Your task to perform on an android device: Open Google Maps Image 0: 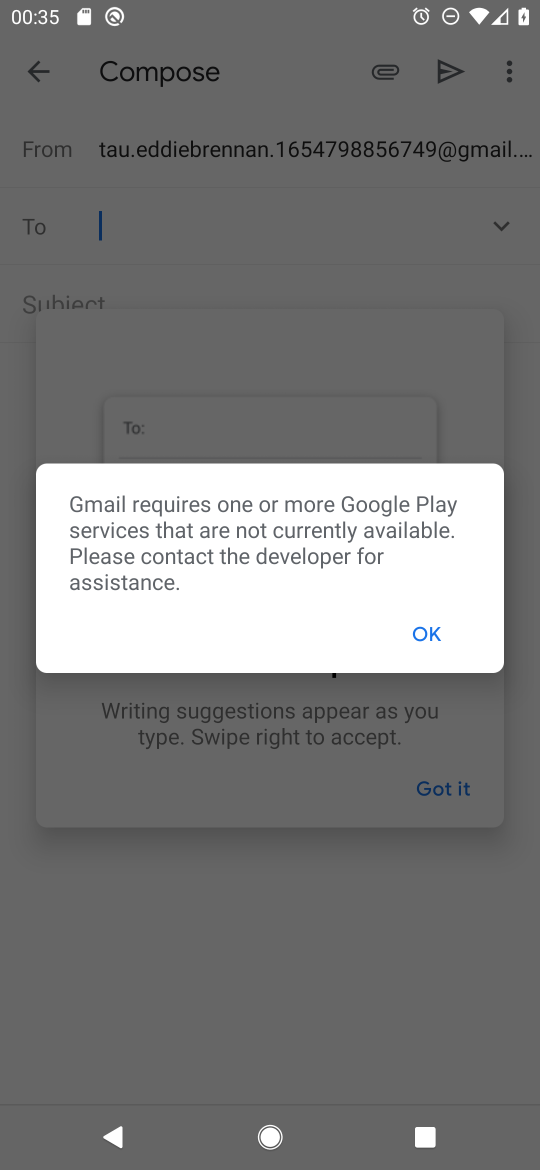
Step 0: press home button
Your task to perform on an android device: Open Google Maps Image 1: 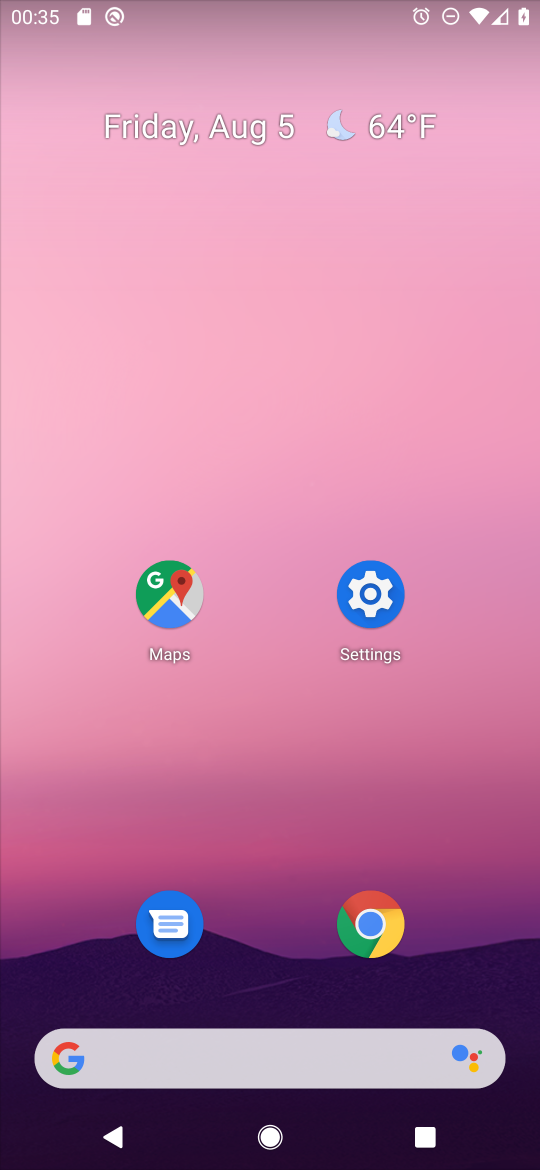
Step 1: click (165, 604)
Your task to perform on an android device: Open Google Maps Image 2: 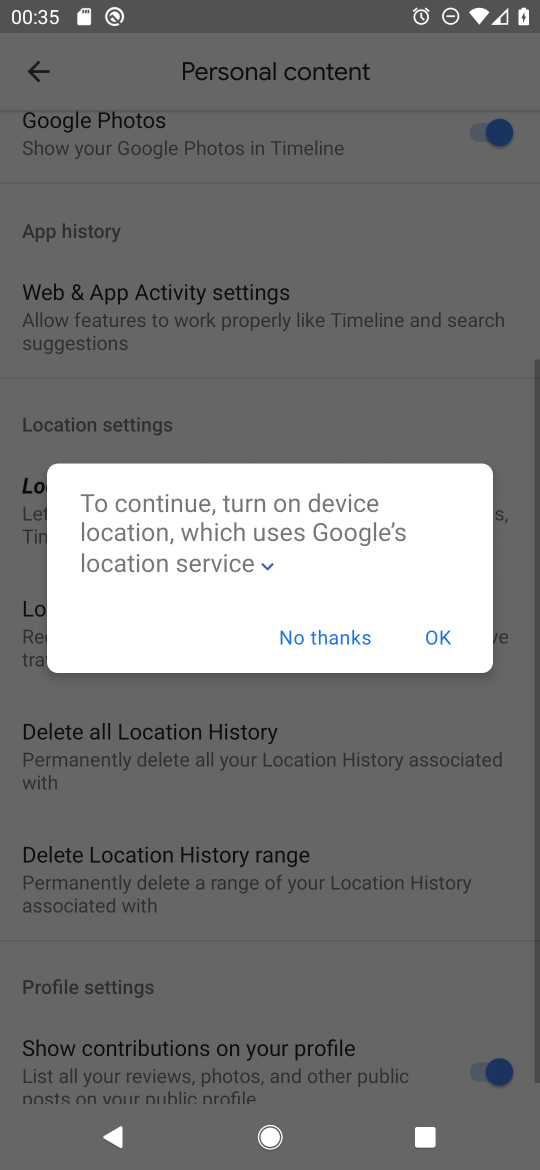
Step 2: click (31, 64)
Your task to perform on an android device: Open Google Maps Image 3: 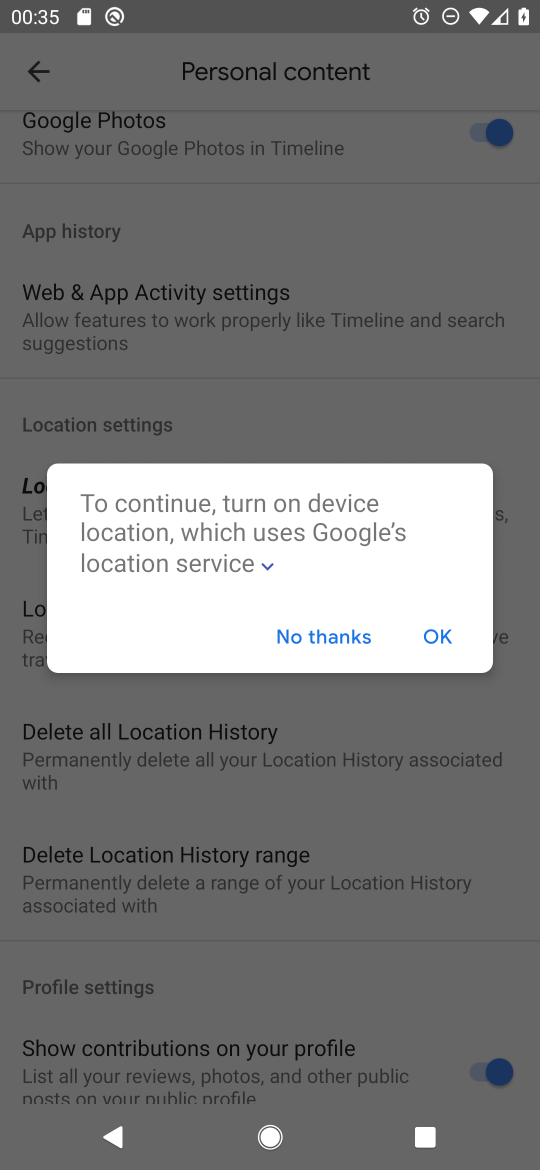
Step 3: click (432, 631)
Your task to perform on an android device: Open Google Maps Image 4: 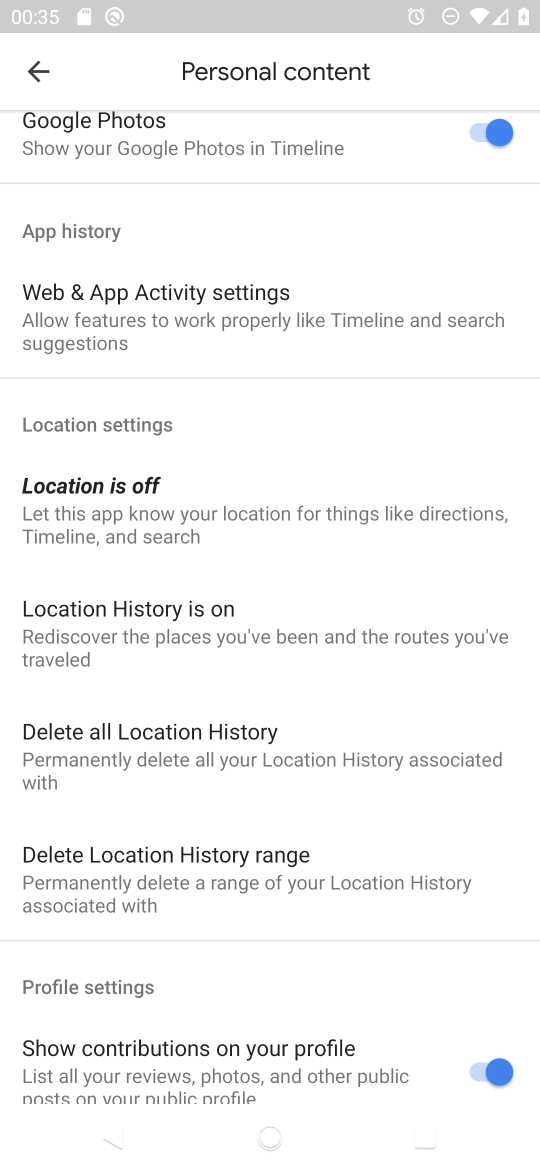
Step 4: click (38, 75)
Your task to perform on an android device: Open Google Maps Image 5: 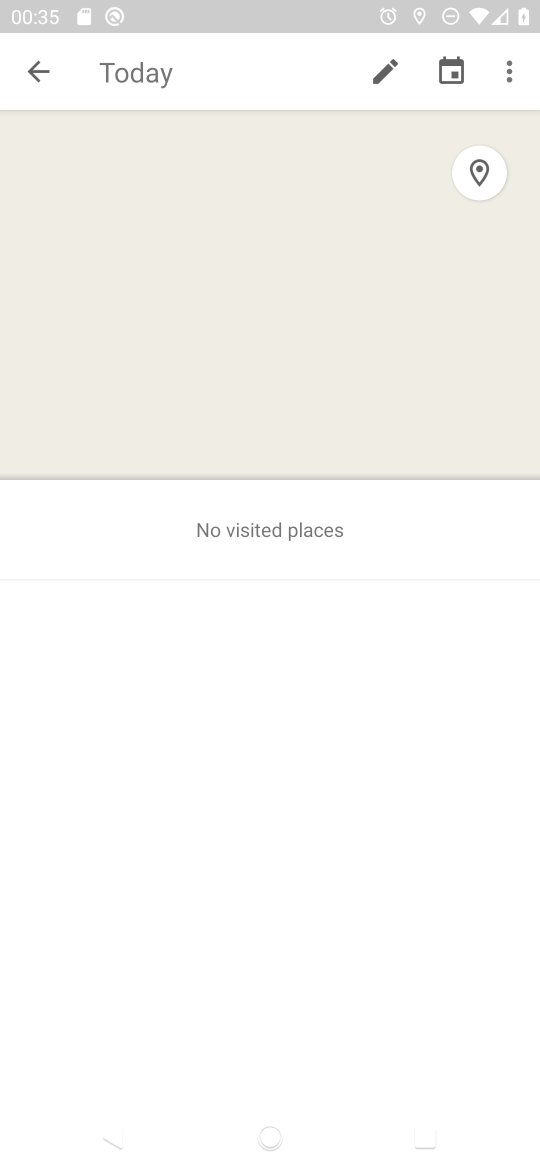
Step 5: click (38, 80)
Your task to perform on an android device: Open Google Maps Image 6: 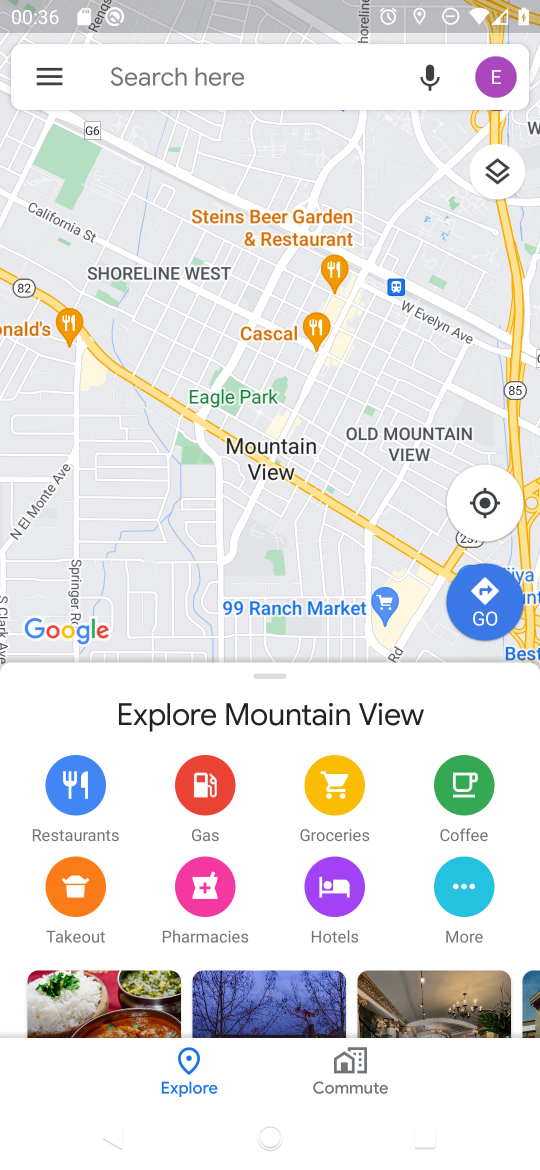
Step 6: task complete